Your task to perform on an android device: Open Chrome and go to the settings page Image 0: 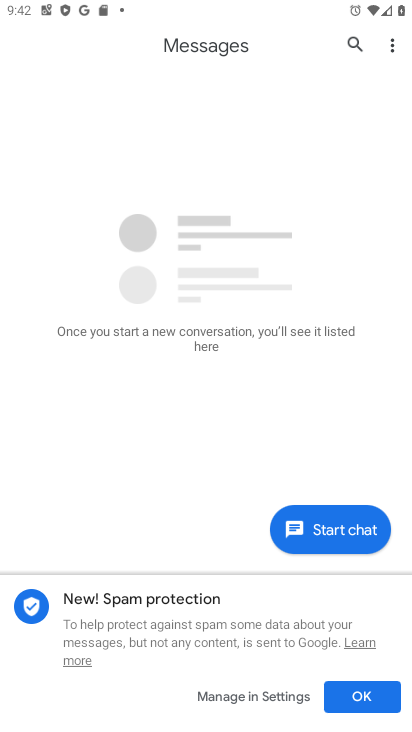
Step 0: press home button
Your task to perform on an android device: Open Chrome and go to the settings page Image 1: 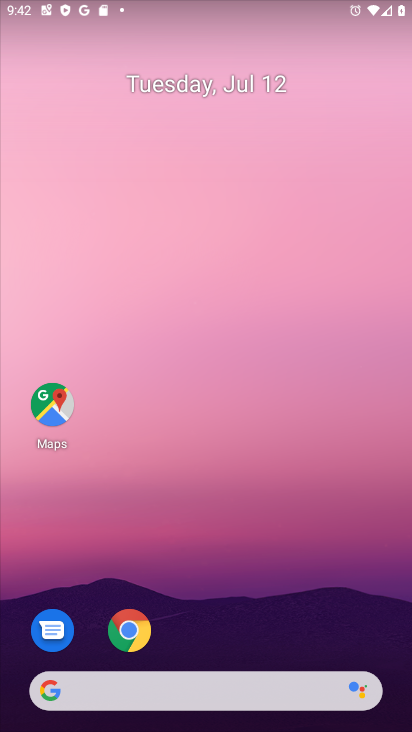
Step 1: click (132, 630)
Your task to perform on an android device: Open Chrome and go to the settings page Image 2: 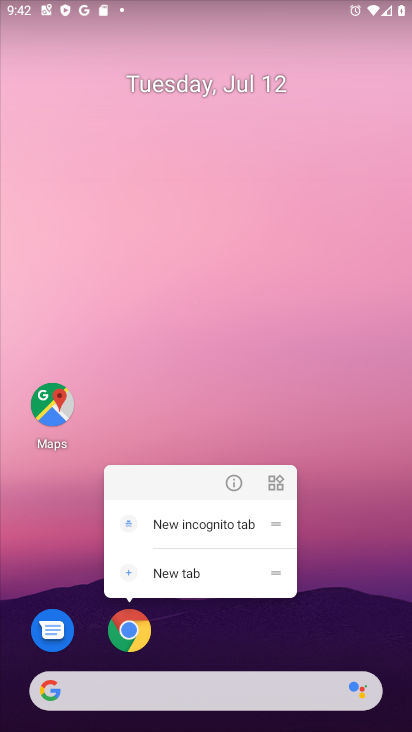
Step 2: click (126, 629)
Your task to perform on an android device: Open Chrome and go to the settings page Image 3: 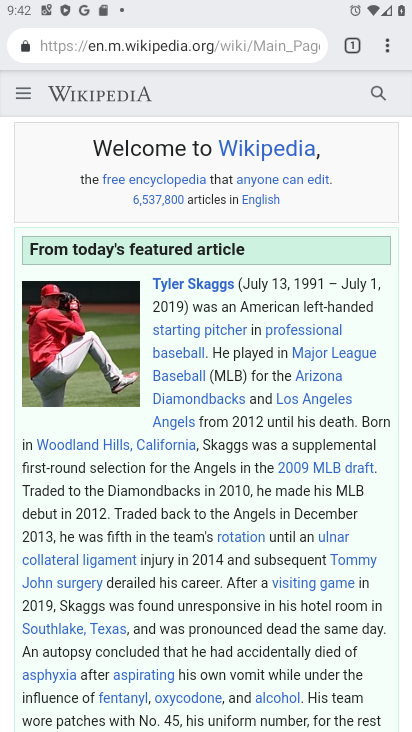
Step 3: click (381, 51)
Your task to perform on an android device: Open Chrome and go to the settings page Image 4: 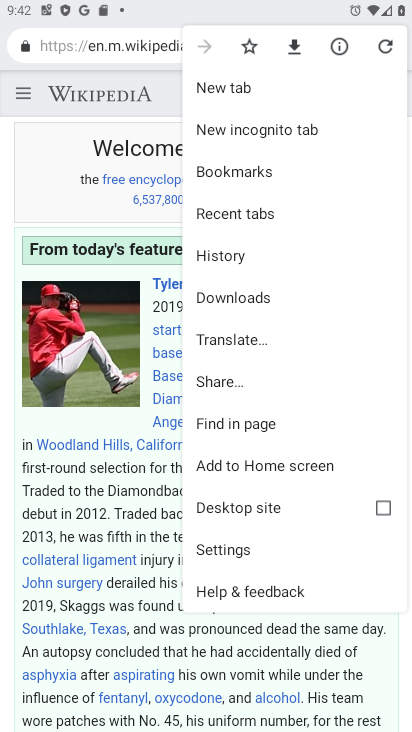
Step 4: click (253, 553)
Your task to perform on an android device: Open Chrome and go to the settings page Image 5: 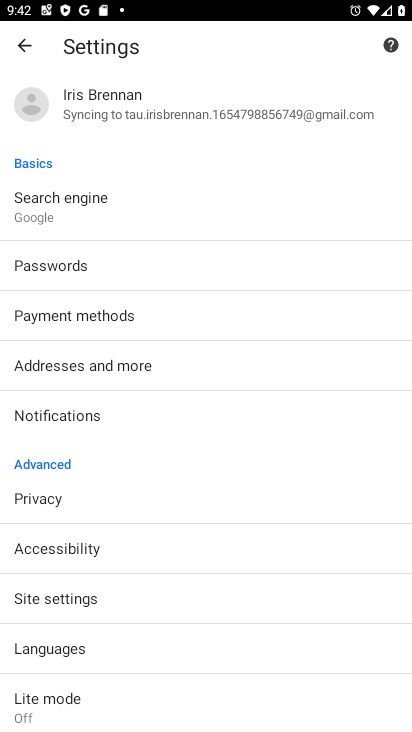
Step 5: task complete